Your task to perform on an android device: Open my contact list Image 0: 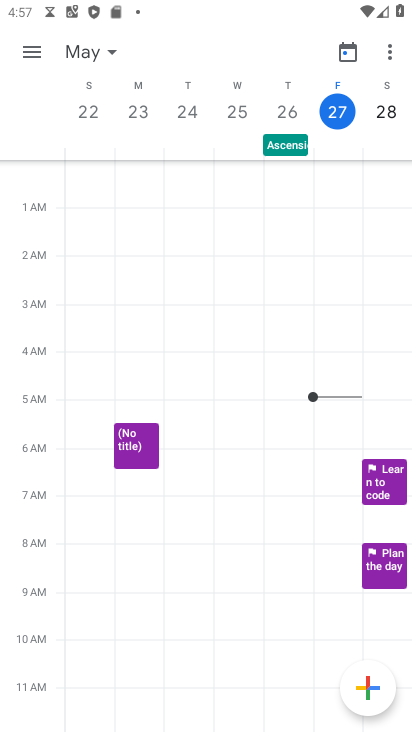
Step 0: press home button
Your task to perform on an android device: Open my contact list Image 1: 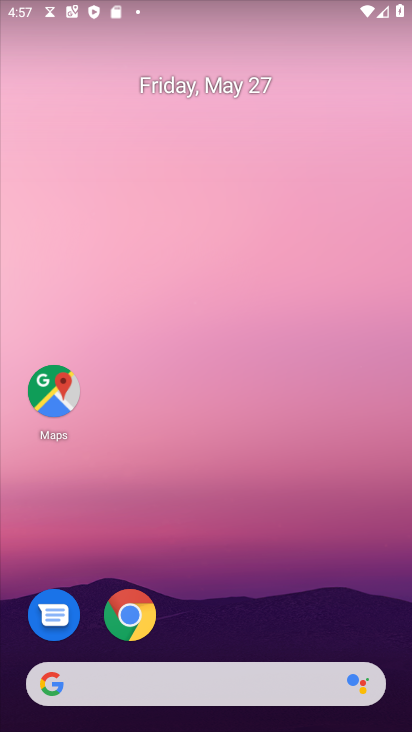
Step 1: drag from (280, 600) to (146, 41)
Your task to perform on an android device: Open my contact list Image 2: 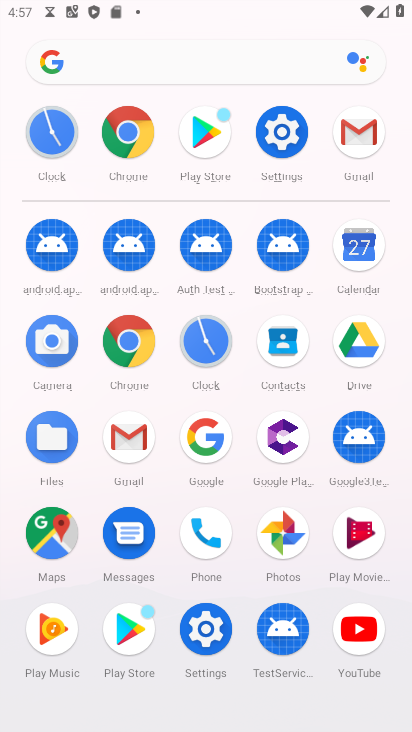
Step 2: click (285, 343)
Your task to perform on an android device: Open my contact list Image 3: 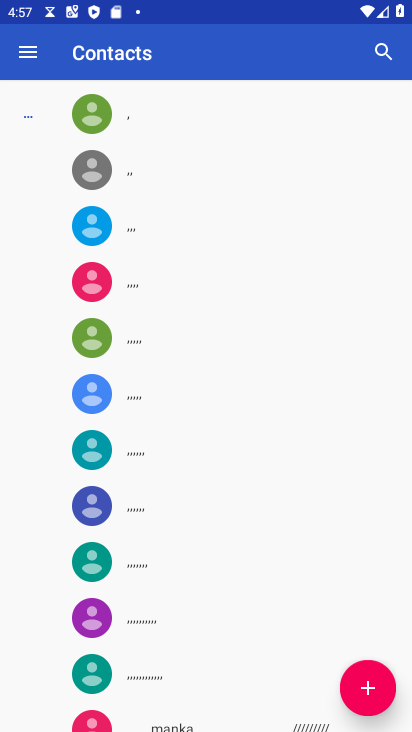
Step 3: task complete